Your task to perform on an android device: Open Google Chrome Image 0: 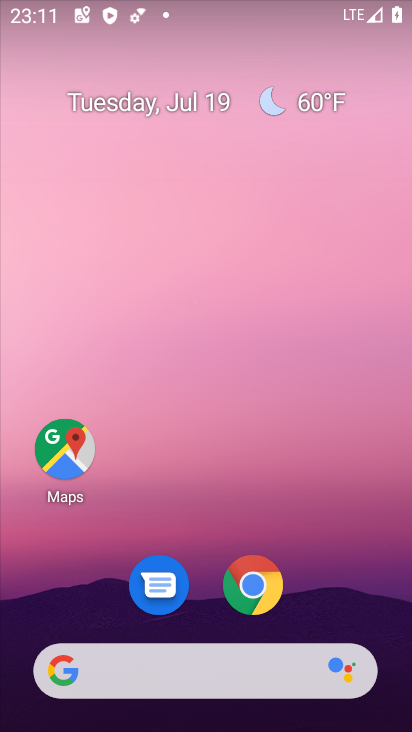
Step 0: click (261, 584)
Your task to perform on an android device: Open Google Chrome Image 1: 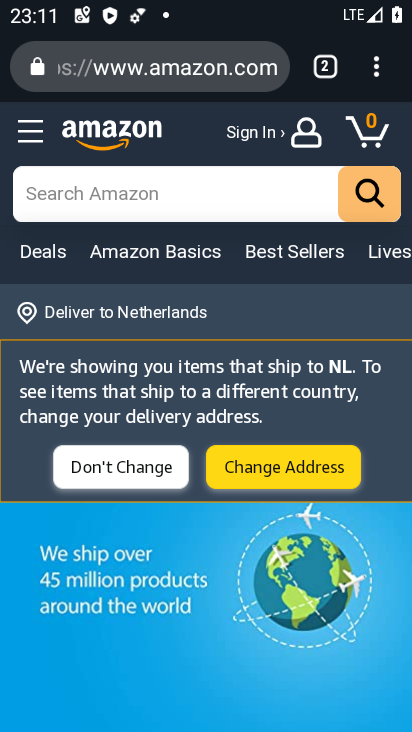
Step 1: click (372, 67)
Your task to perform on an android device: Open Google Chrome Image 2: 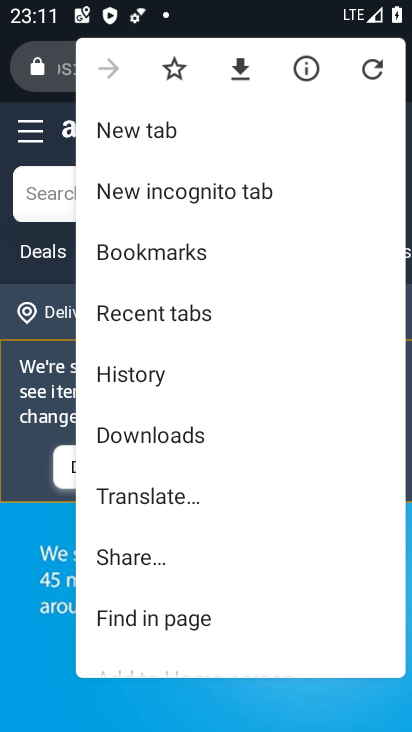
Step 2: click (274, 123)
Your task to perform on an android device: Open Google Chrome Image 3: 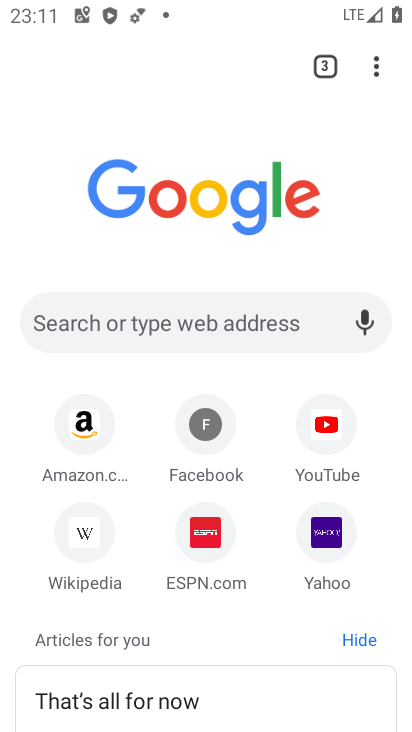
Step 3: task complete